Your task to perform on an android device: Is it going to rain tomorrow? Image 0: 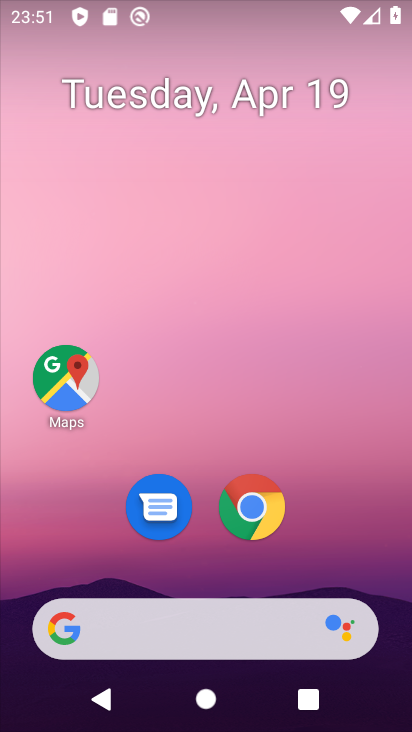
Step 0: drag from (197, 547) to (171, 7)
Your task to perform on an android device: Is it going to rain tomorrow? Image 1: 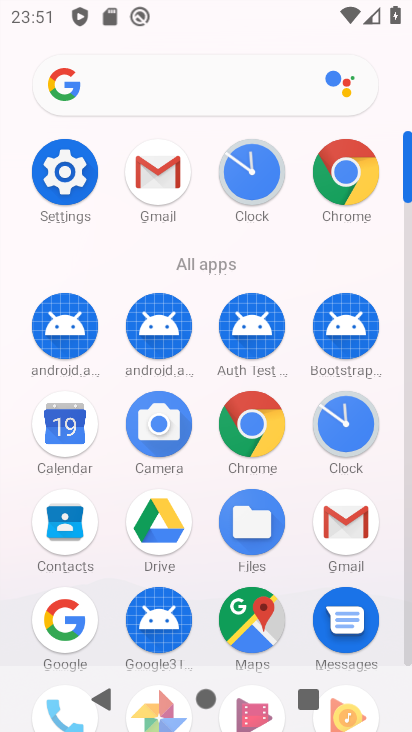
Step 1: click (65, 619)
Your task to perform on an android device: Is it going to rain tomorrow? Image 2: 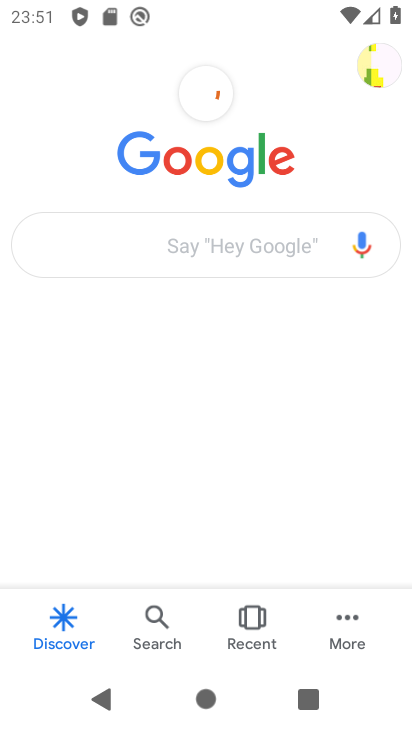
Step 2: click (189, 246)
Your task to perform on an android device: Is it going to rain tomorrow? Image 3: 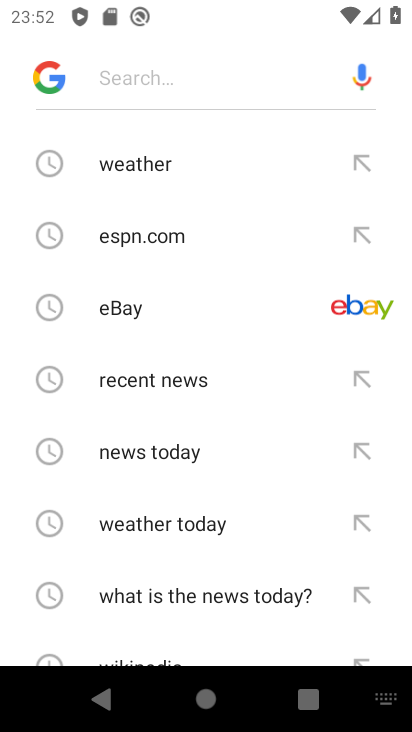
Step 3: type "Is it going to rain tomorrow?"
Your task to perform on an android device: Is it going to rain tomorrow? Image 4: 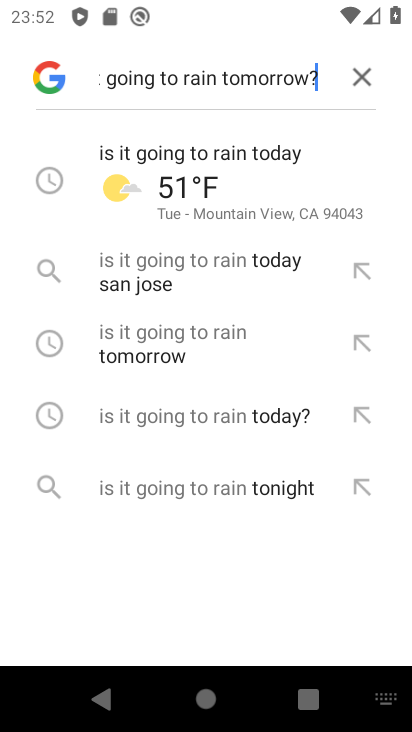
Step 4: type ""
Your task to perform on an android device: Is it going to rain tomorrow? Image 5: 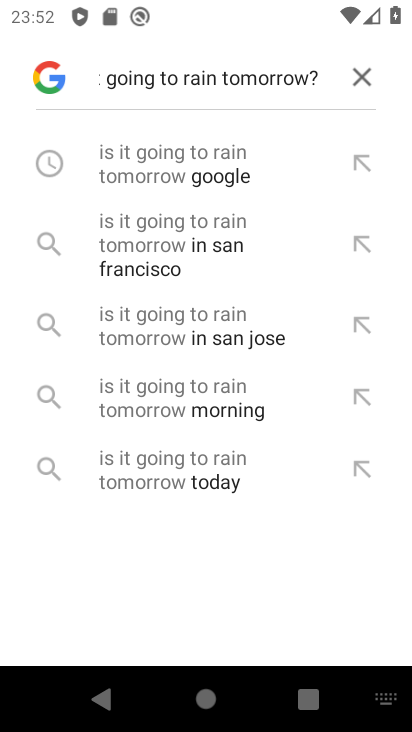
Step 5: click (168, 168)
Your task to perform on an android device: Is it going to rain tomorrow? Image 6: 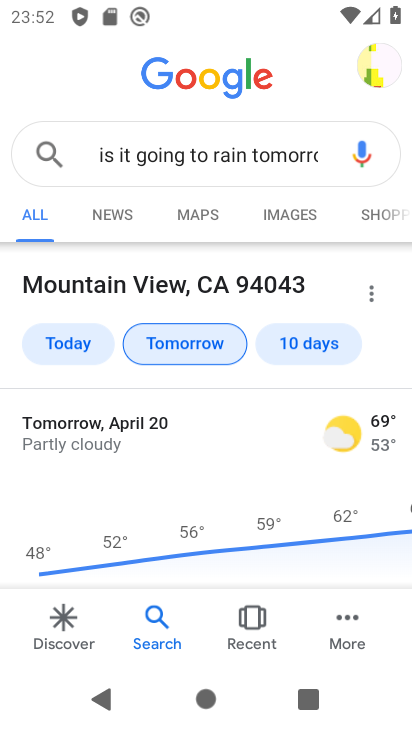
Step 6: task complete